Your task to perform on an android device: Find coffee shops on Maps Image 0: 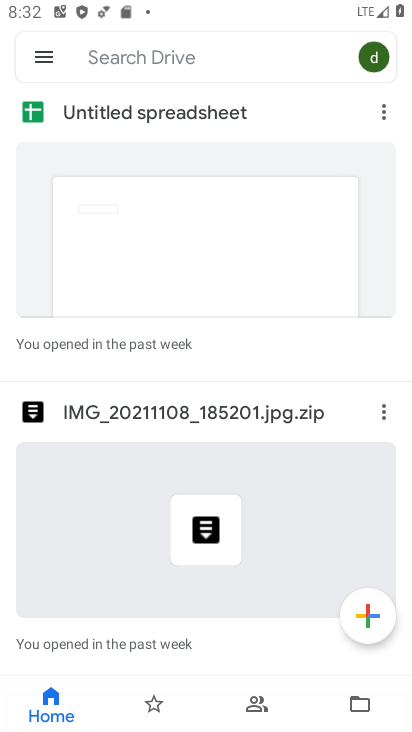
Step 0: press home button
Your task to perform on an android device: Find coffee shops on Maps Image 1: 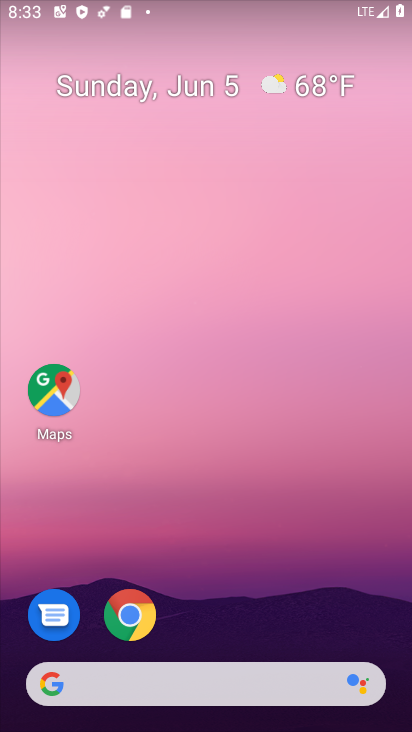
Step 1: click (40, 397)
Your task to perform on an android device: Find coffee shops on Maps Image 2: 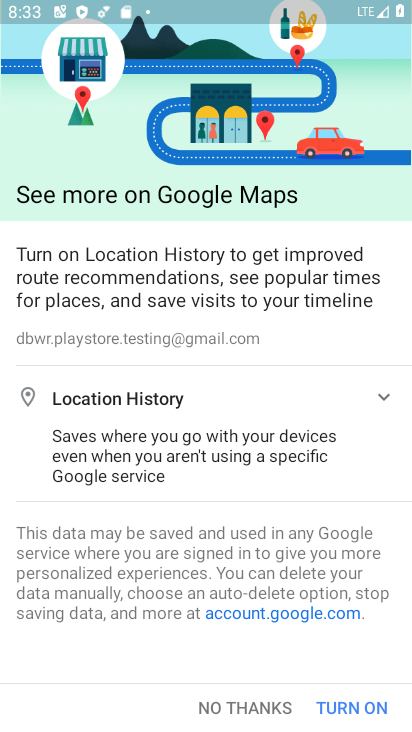
Step 2: click (371, 704)
Your task to perform on an android device: Find coffee shops on Maps Image 3: 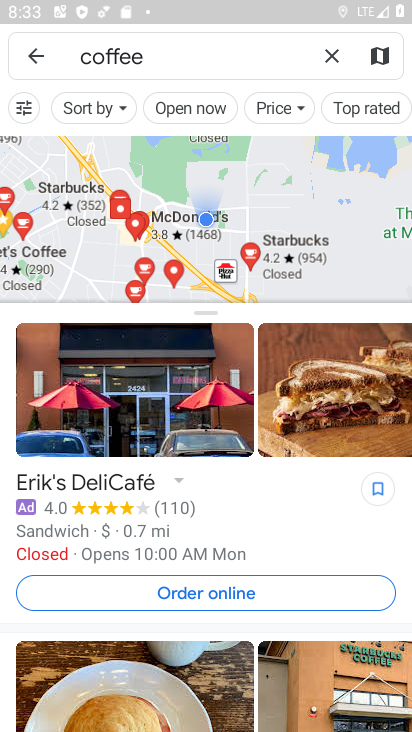
Step 3: task complete